Your task to perform on an android device: turn on the 12-hour format for clock Image 0: 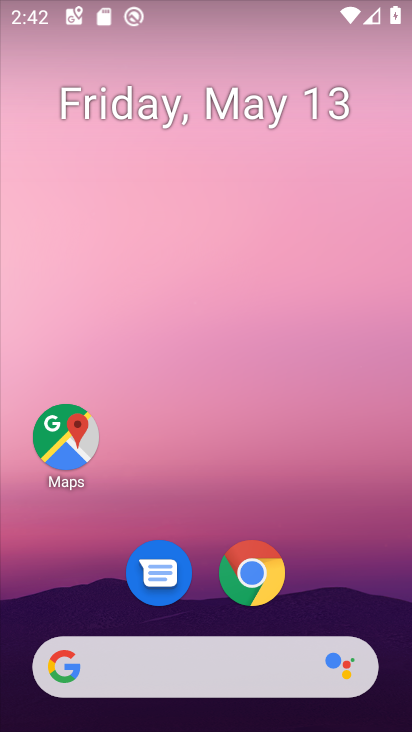
Step 0: drag from (143, 341) to (86, 200)
Your task to perform on an android device: turn on the 12-hour format for clock Image 1: 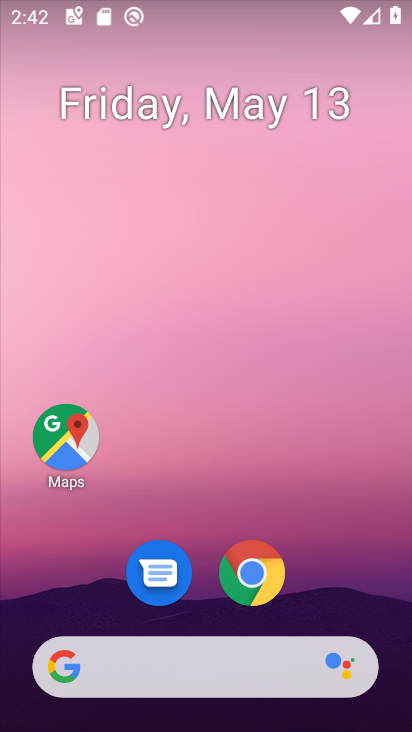
Step 1: drag from (267, 607) to (166, 16)
Your task to perform on an android device: turn on the 12-hour format for clock Image 2: 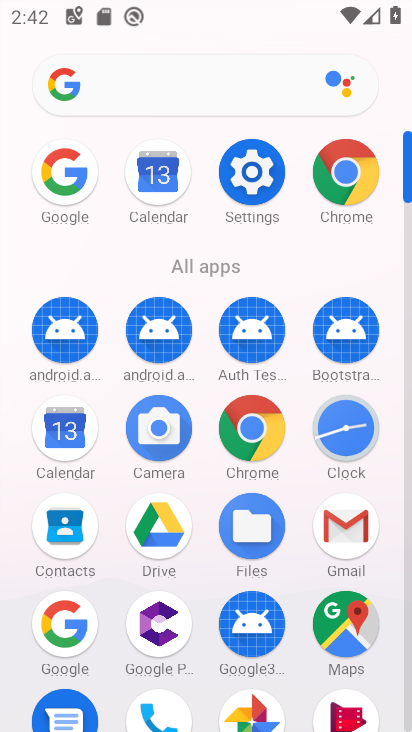
Step 2: click (349, 415)
Your task to perform on an android device: turn on the 12-hour format for clock Image 3: 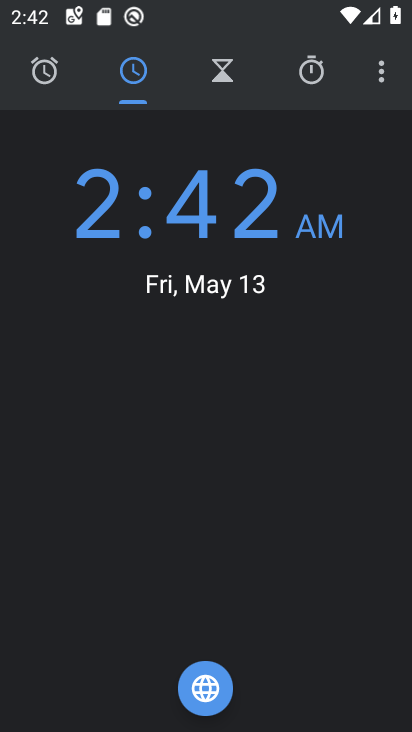
Step 3: click (379, 63)
Your task to perform on an android device: turn on the 12-hour format for clock Image 4: 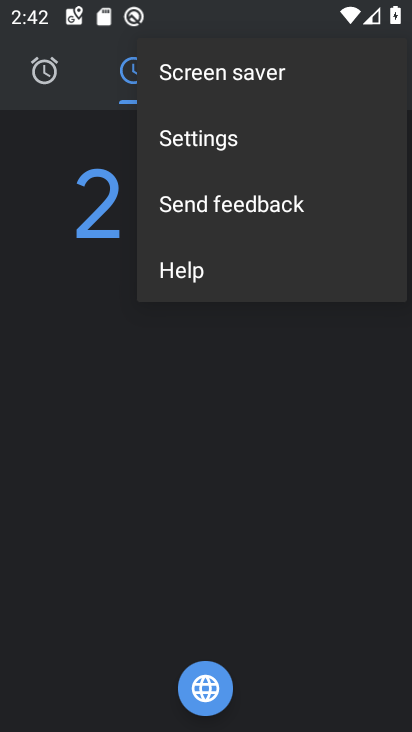
Step 4: click (197, 135)
Your task to perform on an android device: turn on the 12-hour format for clock Image 5: 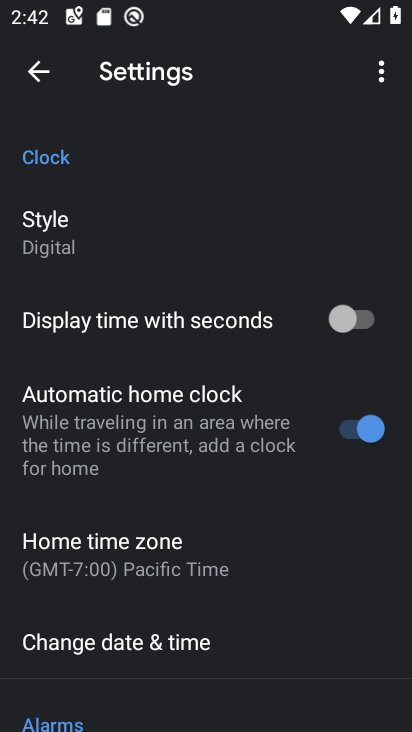
Step 5: click (160, 628)
Your task to perform on an android device: turn on the 12-hour format for clock Image 6: 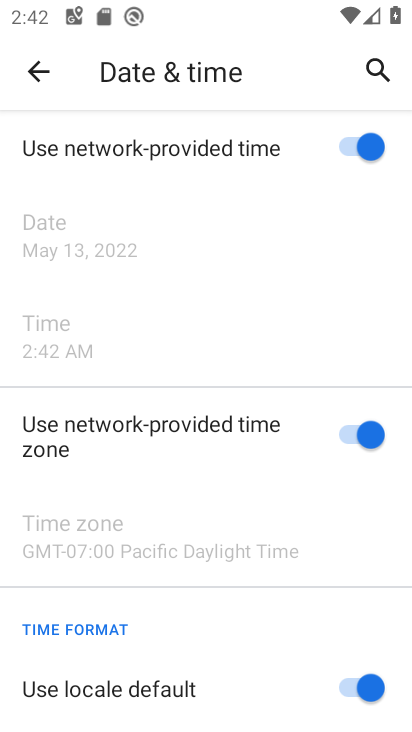
Step 6: task complete